Your task to perform on an android device: Open CNN.com Image 0: 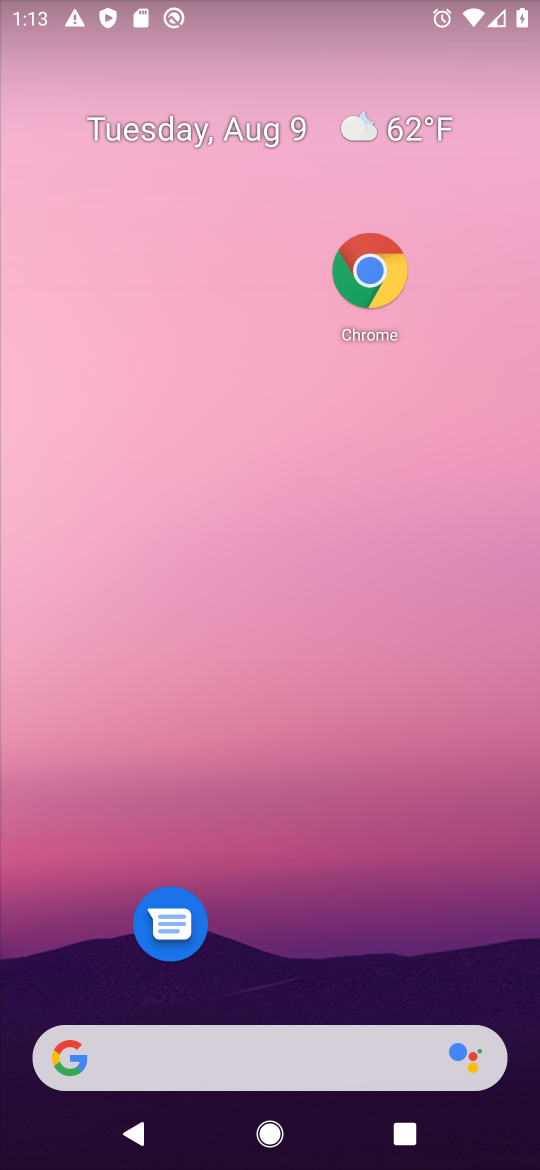
Step 0: drag from (294, 1011) to (307, 185)
Your task to perform on an android device: Open CNN.com Image 1: 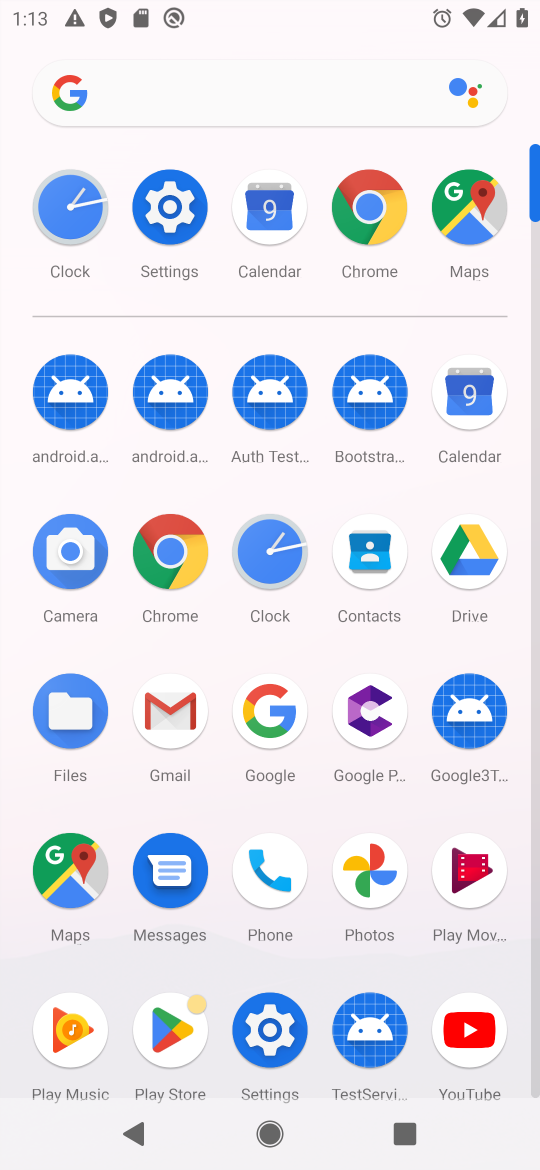
Step 1: click (355, 197)
Your task to perform on an android device: Open CNN.com Image 2: 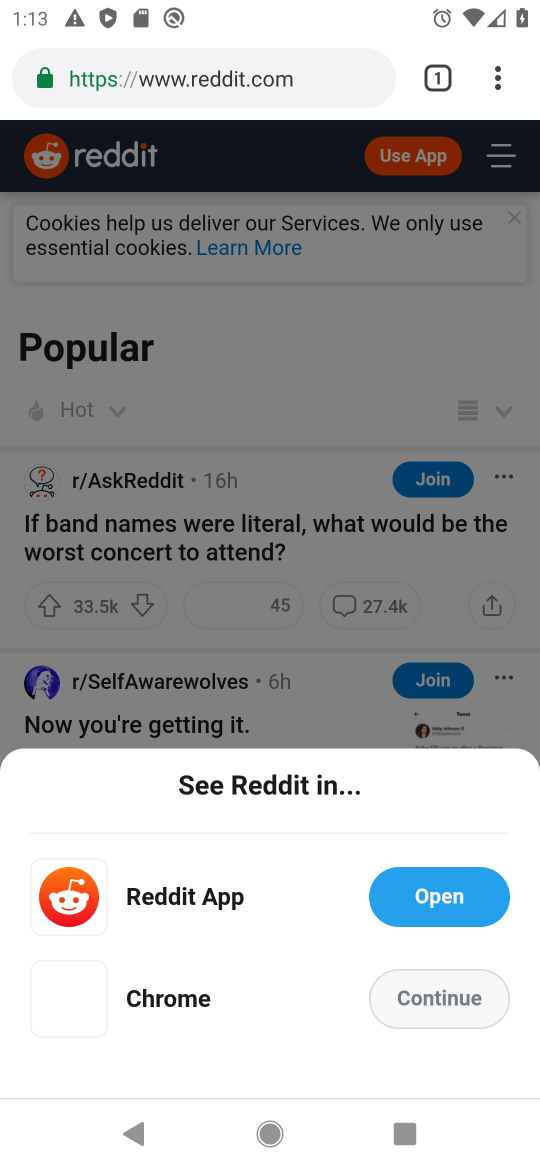
Step 2: click (275, 80)
Your task to perform on an android device: Open CNN.com Image 3: 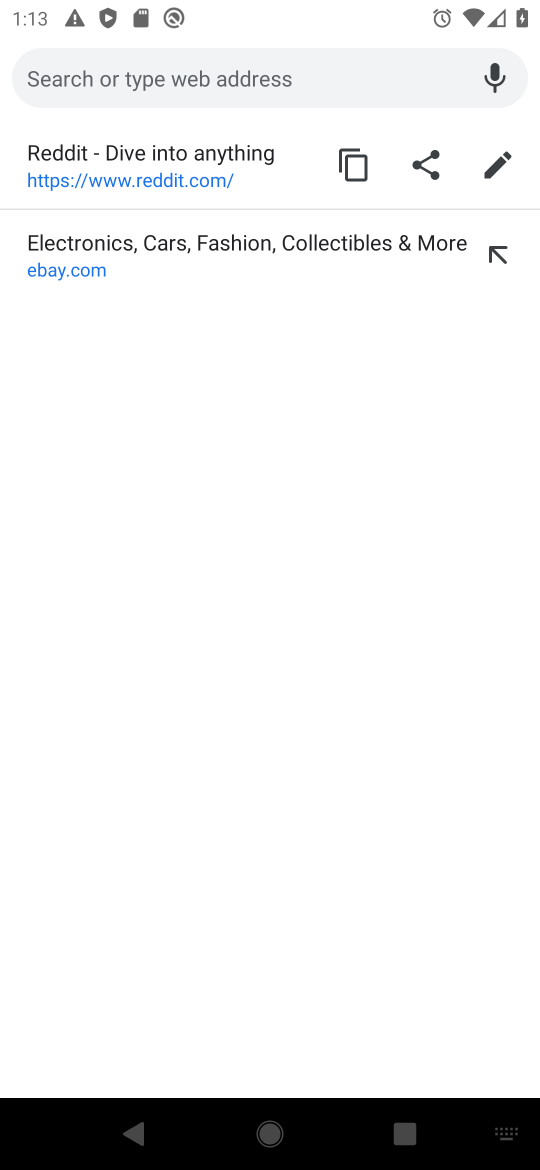
Step 3: type "cnn.com"
Your task to perform on an android device: Open CNN.com Image 4: 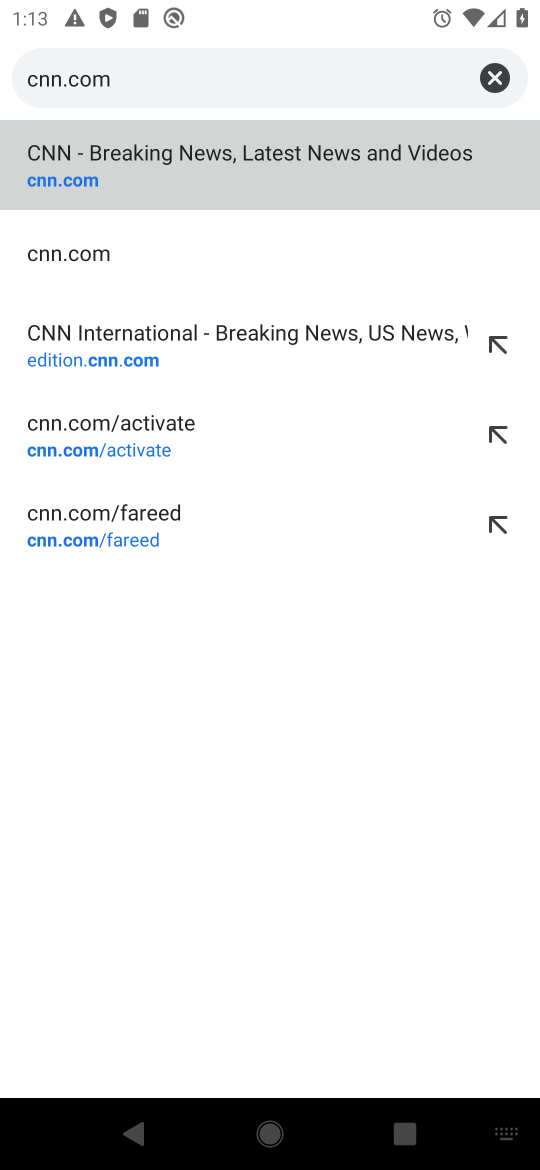
Step 4: click (115, 198)
Your task to perform on an android device: Open CNN.com Image 5: 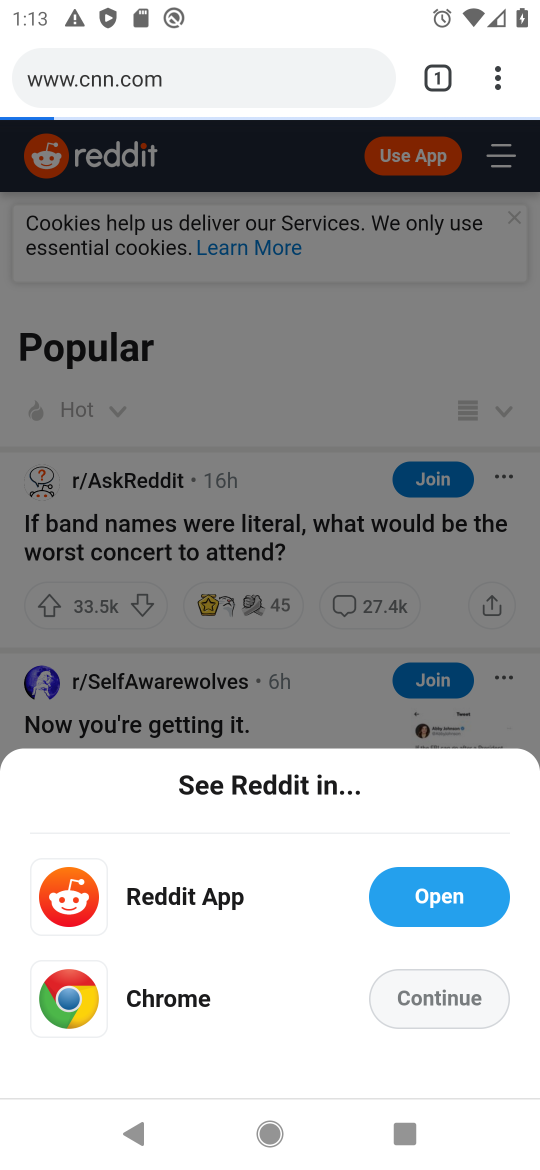
Step 5: task complete